Your task to perform on an android device: Open maps Image 0: 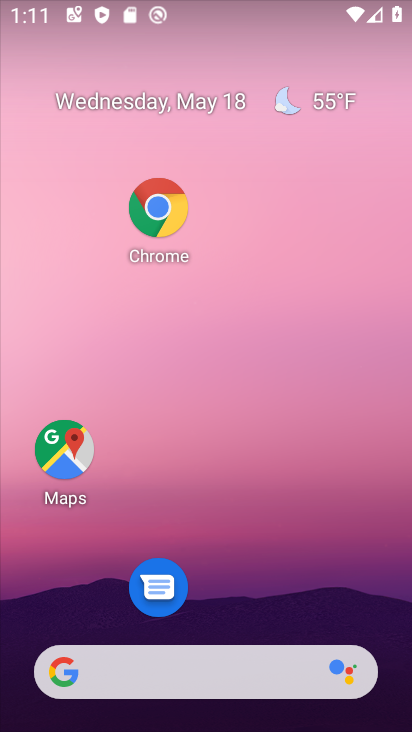
Step 0: click (66, 452)
Your task to perform on an android device: Open maps Image 1: 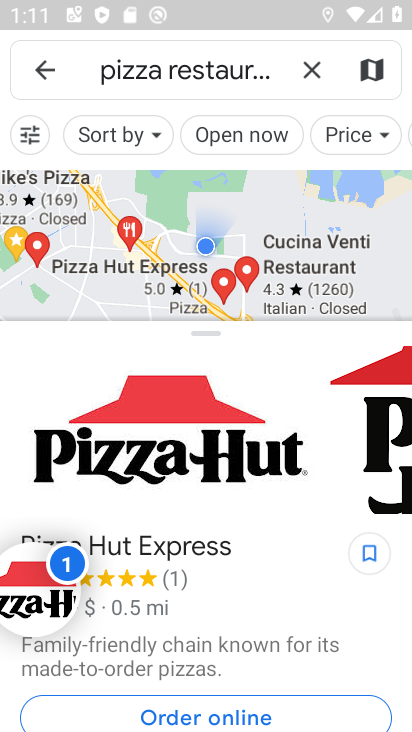
Step 1: task complete